Your task to perform on an android device: Open the map Image 0: 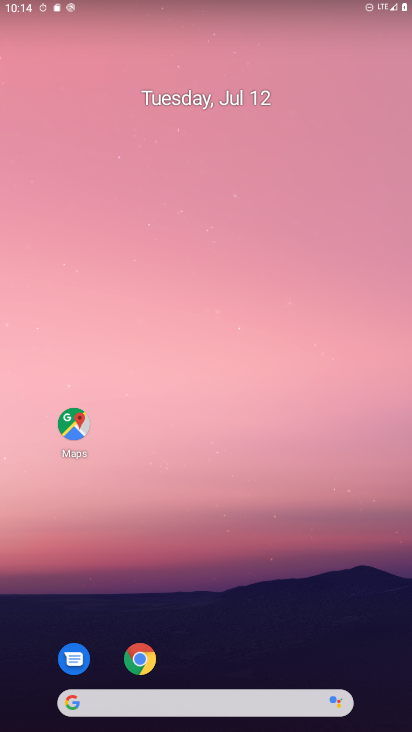
Step 0: drag from (391, 686) to (181, 16)
Your task to perform on an android device: Open the map Image 1: 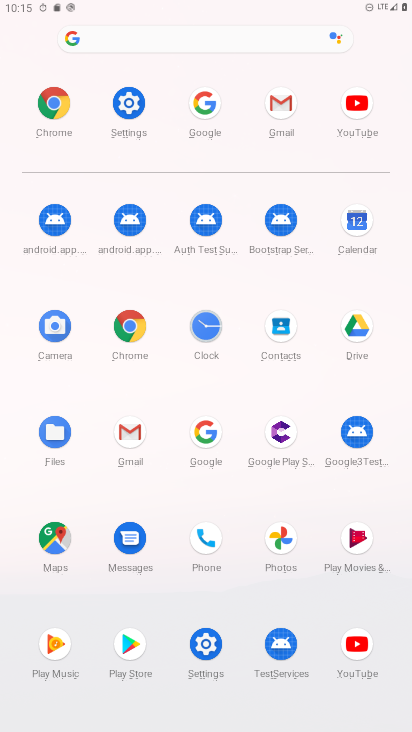
Step 1: click (50, 533)
Your task to perform on an android device: Open the map Image 2: 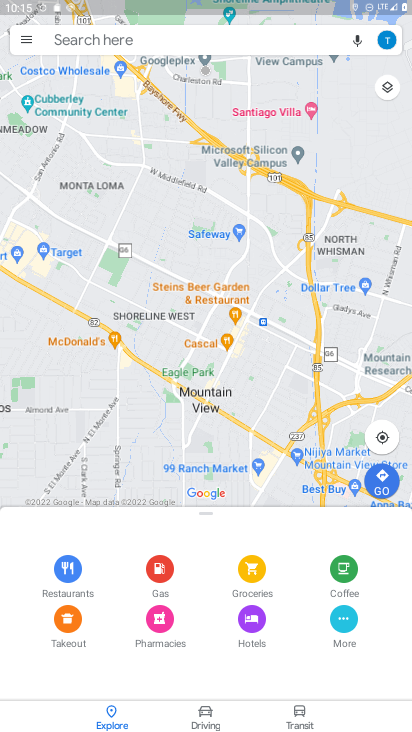
Step 2: task complete